Your task to perform on an android device: toggle wifi Image 0: 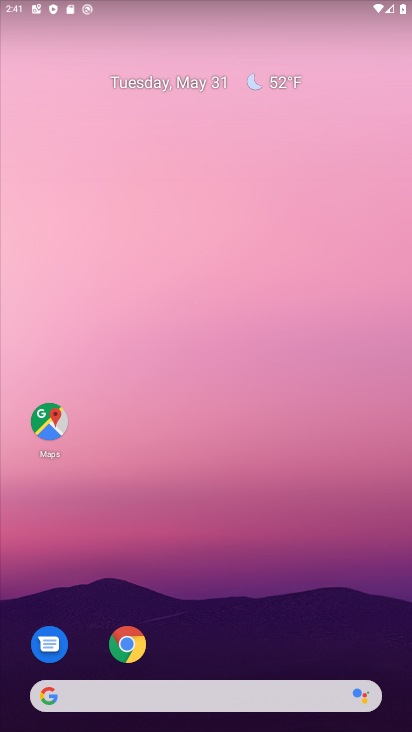
Step 0: drag from (242, 1) to (253, 351)
Your task to perform on an android device: toggle wifi Image 1: 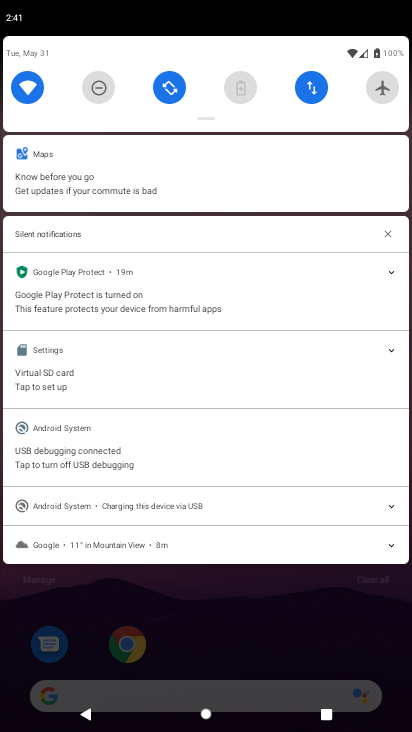
Step 1: click (27, 80)
Your task to perform on an android device: toggle wifi Image 2: 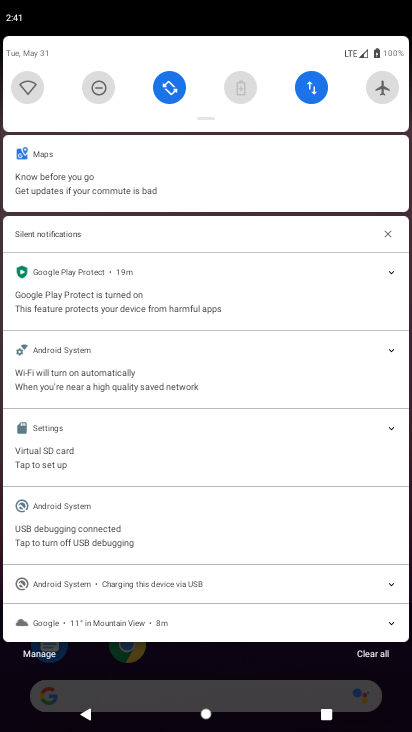
Step 2: task complete